Your task to perform on an android device: Go to wifi settings Image 0: 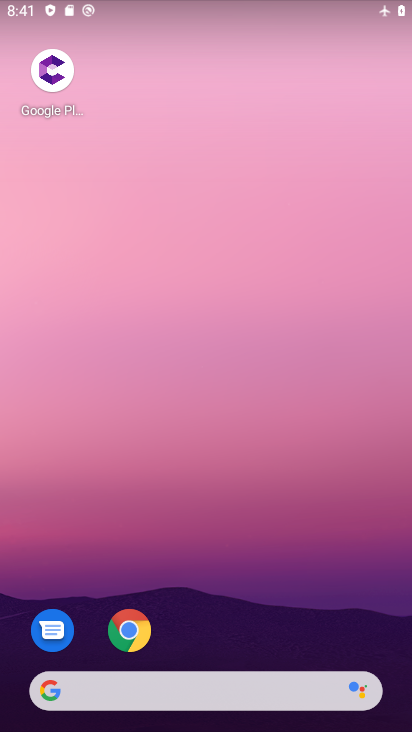
Step 0: click (20, 634)
Your task to perform on an android device: Go to wifi settings Image 1: 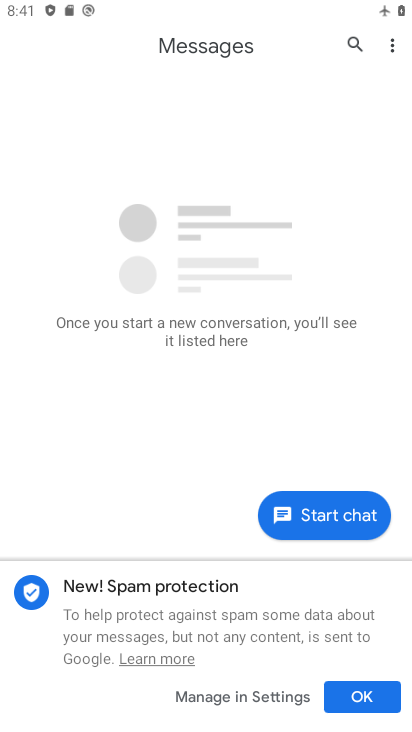
Step 1: press home button
Your task to perform on an android device: Go to wifi settings Image 2: 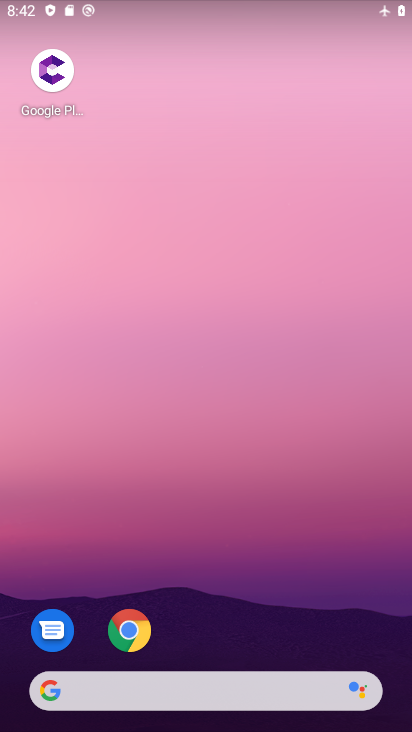
Step 2: drag from (179, 667) to (261, 4)
Your task to perform on an android device: Go to wifi settings Image 3: 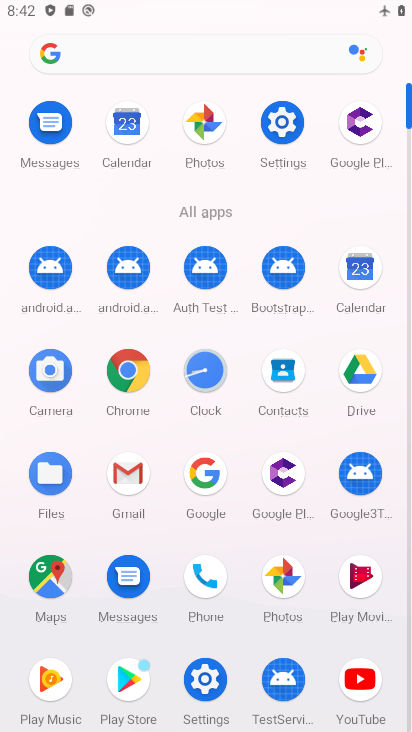
Step 3: click (281, 123)
Your task to perform on an android device: Go to wifi settings Image 4: 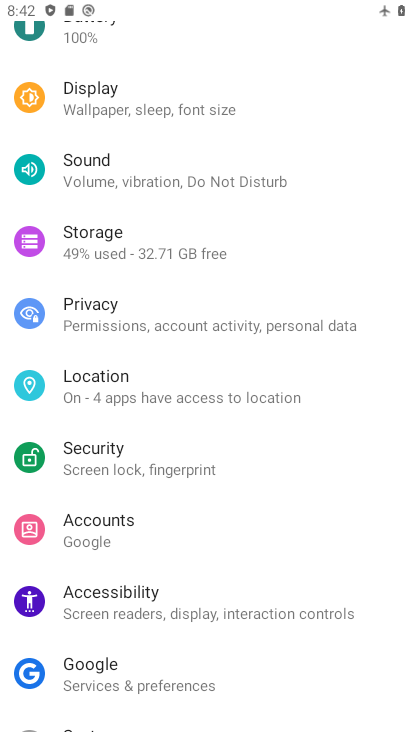
Step 4: drag from (175, 63) to (181, 233)
Your task to perform on an android device: Go to wifi settings Image 5: 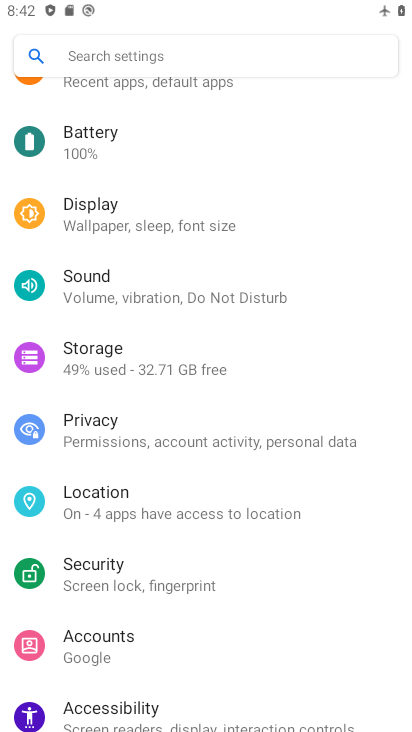
Step 5: drag from (153, 93) to (143, 340)
Your task to perform on an android device: Go to wifi settings Image 6: 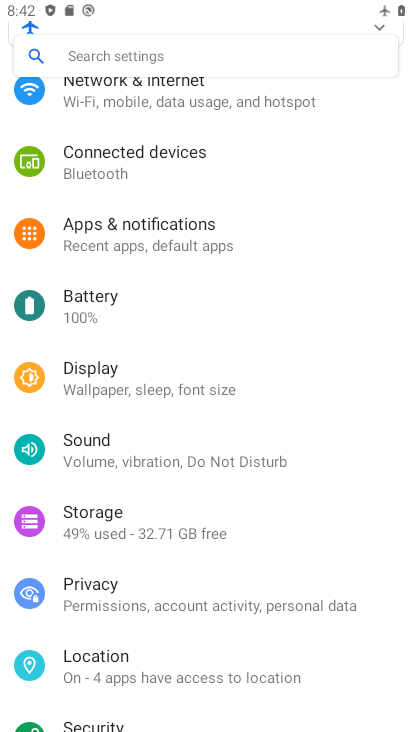
Step 6: click (166, 114)
Your task to perform on an android device: Go to wifi settings Image 7: 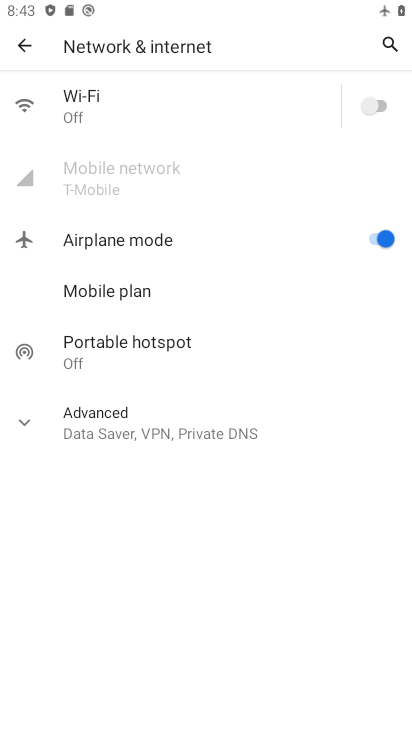
Step 7: click (373, 236)
Your task to perform on an android device: Go to wifi settings Image 8: 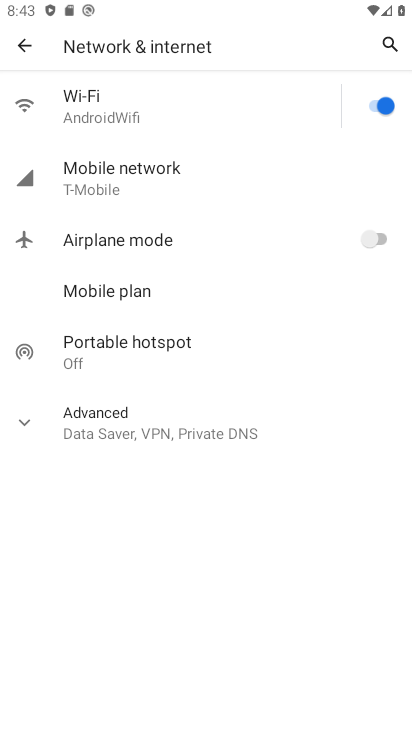
Step 8: click (106, 114)
Your task to perform on an android device: Go to wifi settings Image 9: 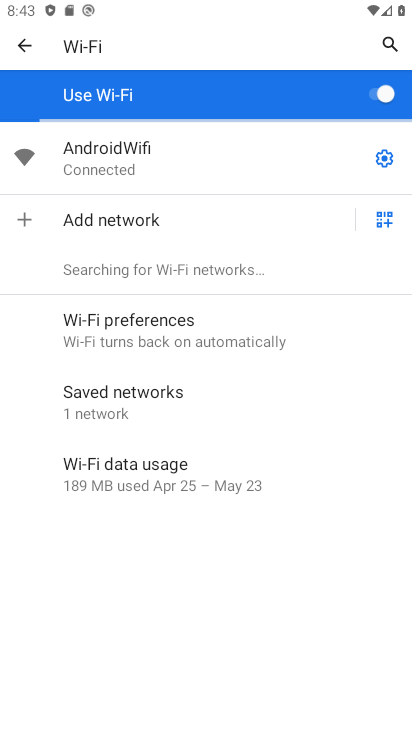
Step 9: click (389, 153)
Your task to perform on an android device: Go to wifi settings Image 10: 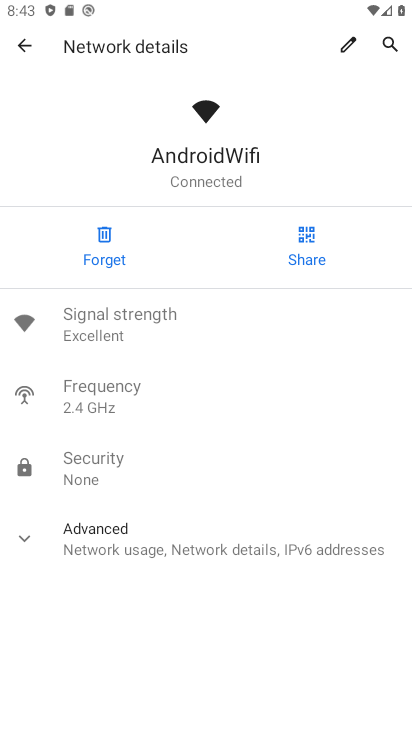
Step 10: click (103, 539)
Your task to perform on an android device: Go to wifi settings Image 11: 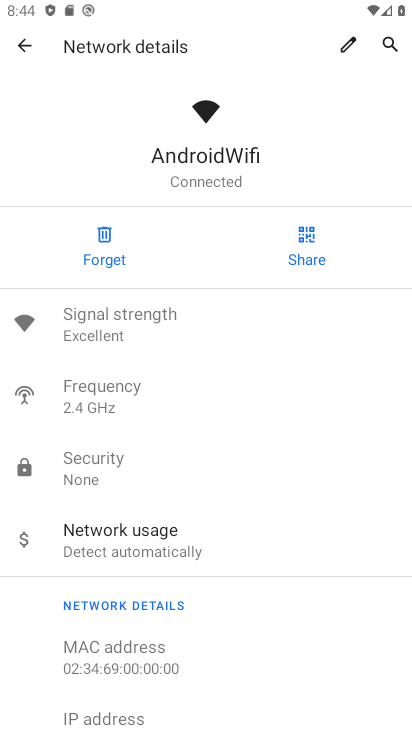
Step 11: task complete